Your task to perform on an android device: turn on wifi Image 0: 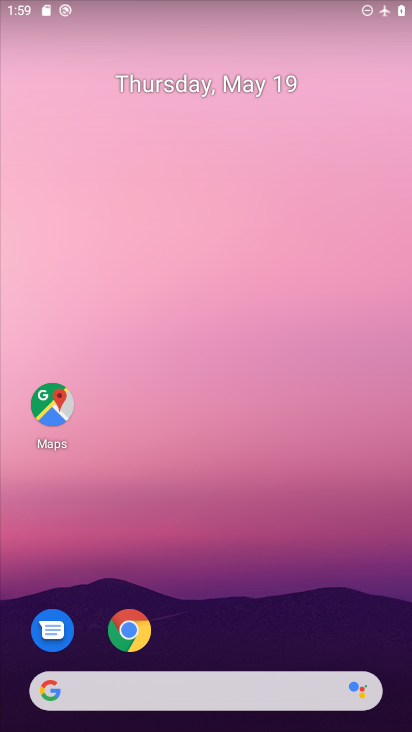
Step 0: drag from (239, 658) to (210, 231)
Your task to perform on an android device: turn on wifi Image 1: 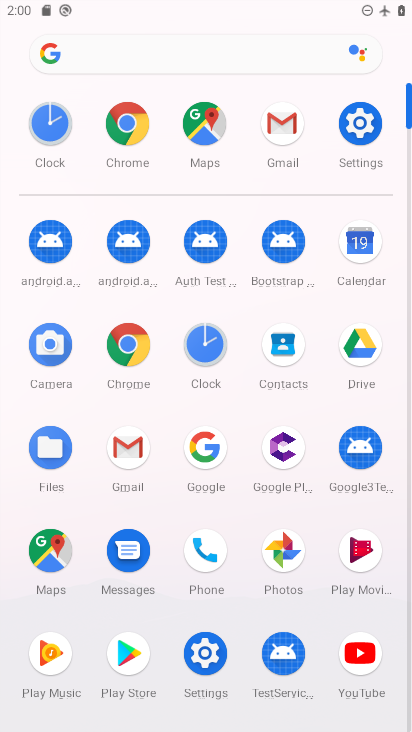
Step 1: click (343, 134)
Your task to perform on an android device: turn on wifi Image 2: 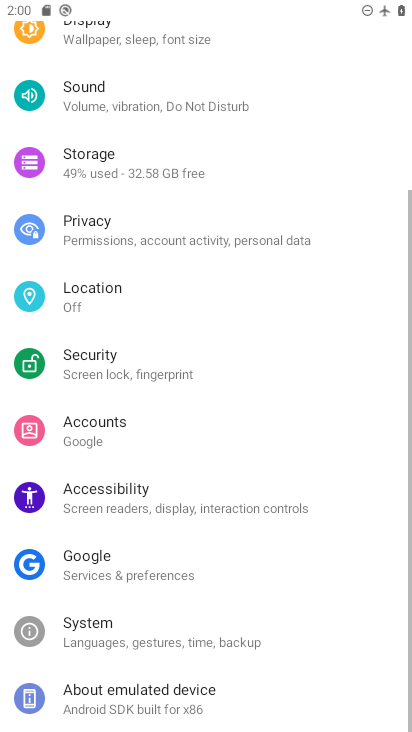
Step 2: drag from (132, 124) to (116, 621)
Your task to perform on an android device: turn on wifi Image 3: 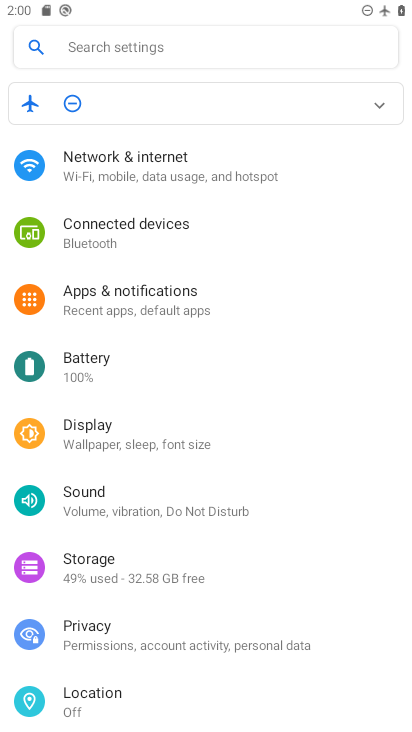
Step 3: click (140, 173)
Your task to perform on an android device: turn on wifi Image 4: 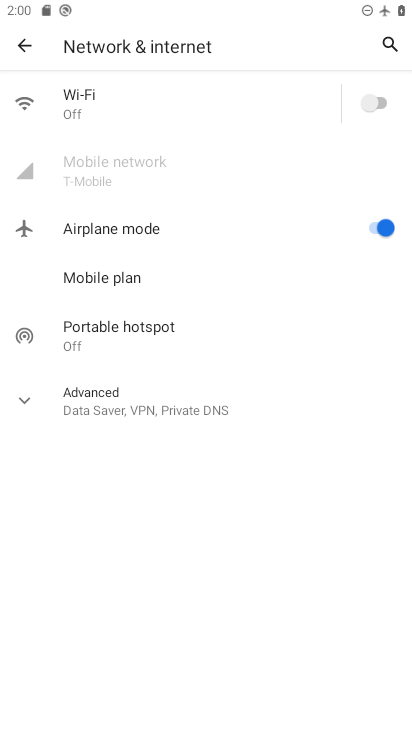
Step 4: click (376, 99)
Your task to perform on an android device: turn on wifi Image 5: 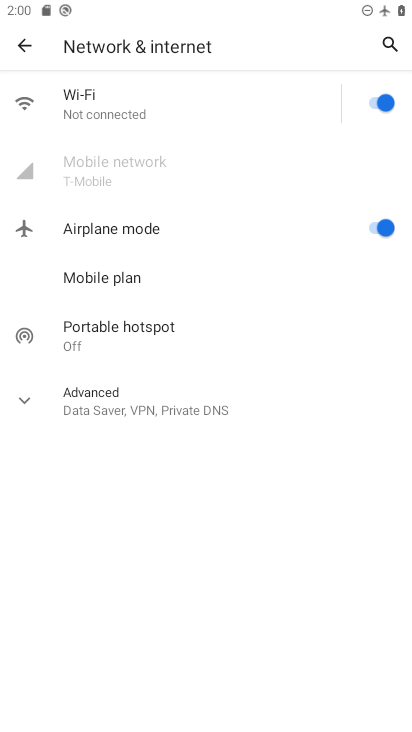
Step 5: task complete